Your task to perform on an android device: Open Yahoo.com Image 0: 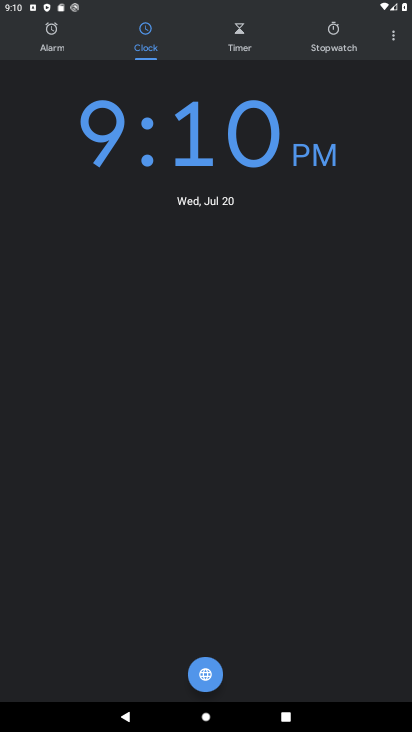
Step 0: press home button
Your task to perform on an android device: Open Yahoo.com Image 1: 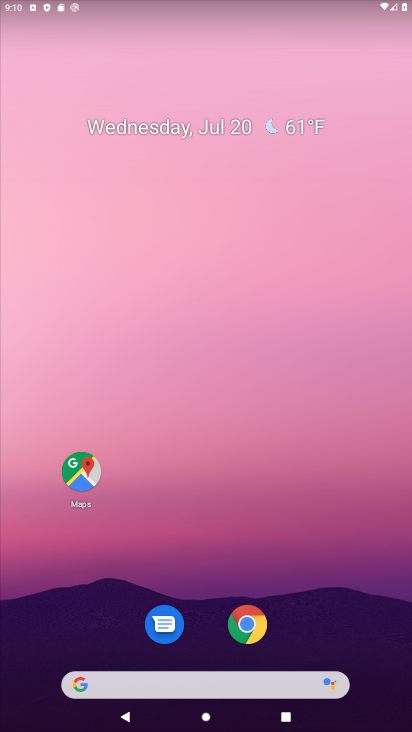
Step 1: click (237, 604)
Your task to perform on an android device: Open Yahoo.com Image 2: 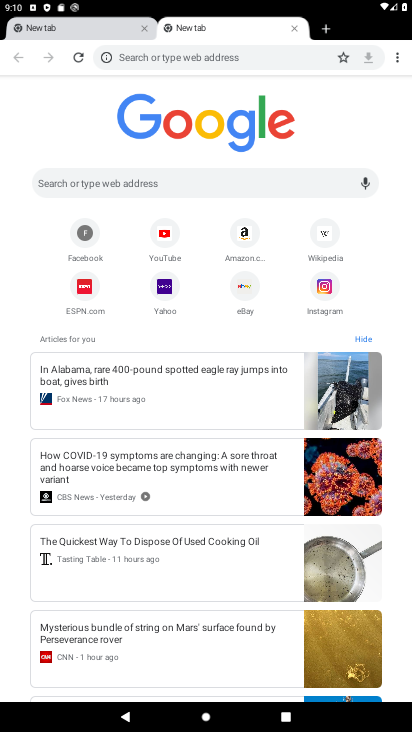
Step 2: click (176, 293)
Your task to perform on an android device: Open Yahoo.com Image 3: 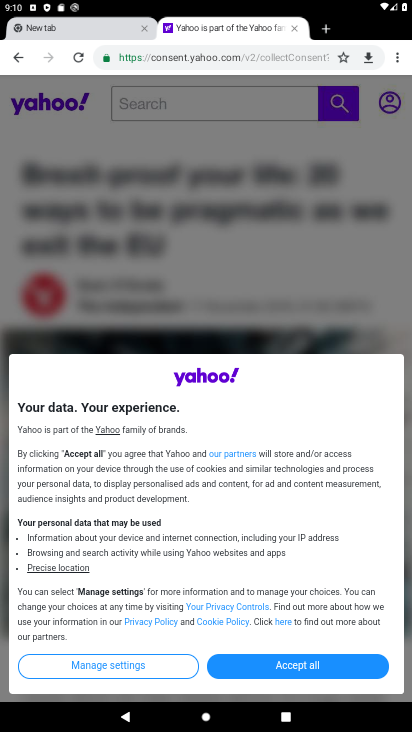
Step 3: task complete